Your task to perform on an android device: Add macbook pro 13 inch to the cart on walmart.com Image 0: 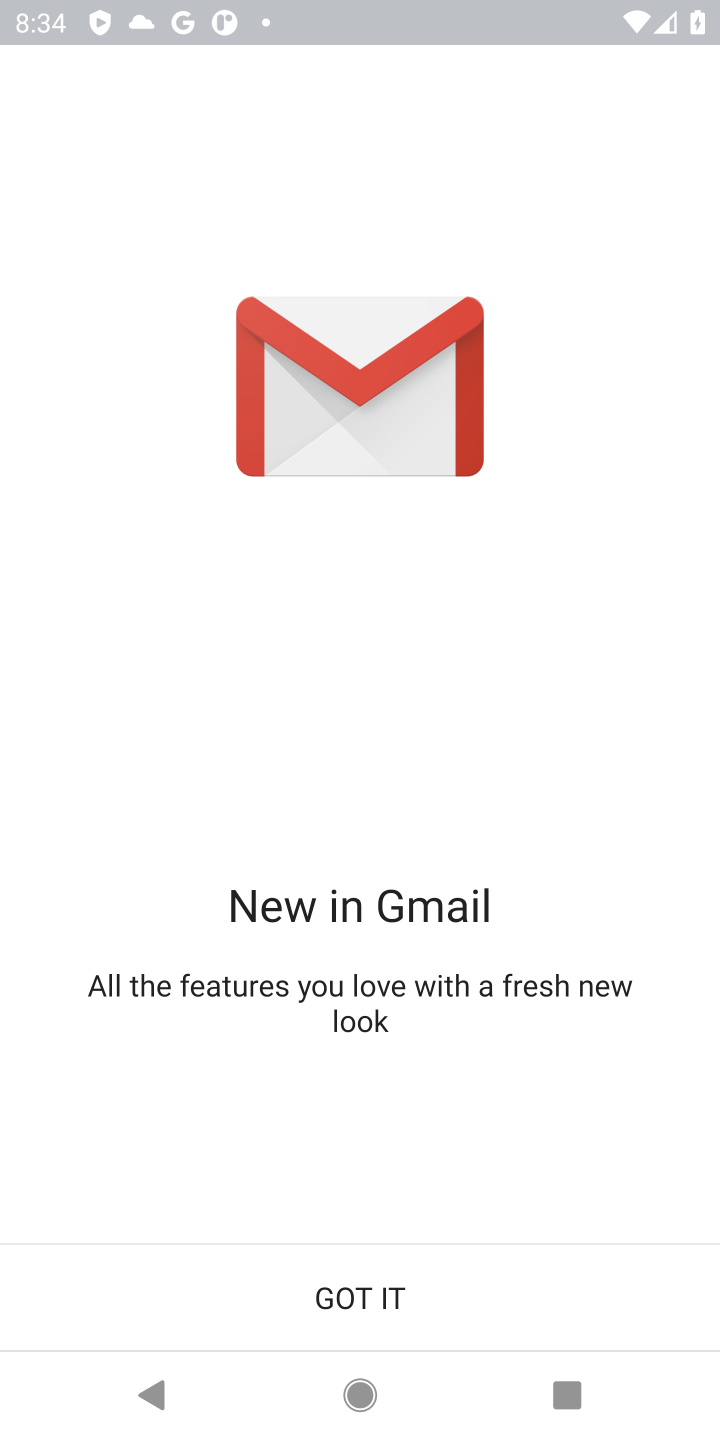
Step 0: click (449, 1317)
Your task to perform on an android device: Add macbook pro 13 inch to the cart on walmart.com Image 1: 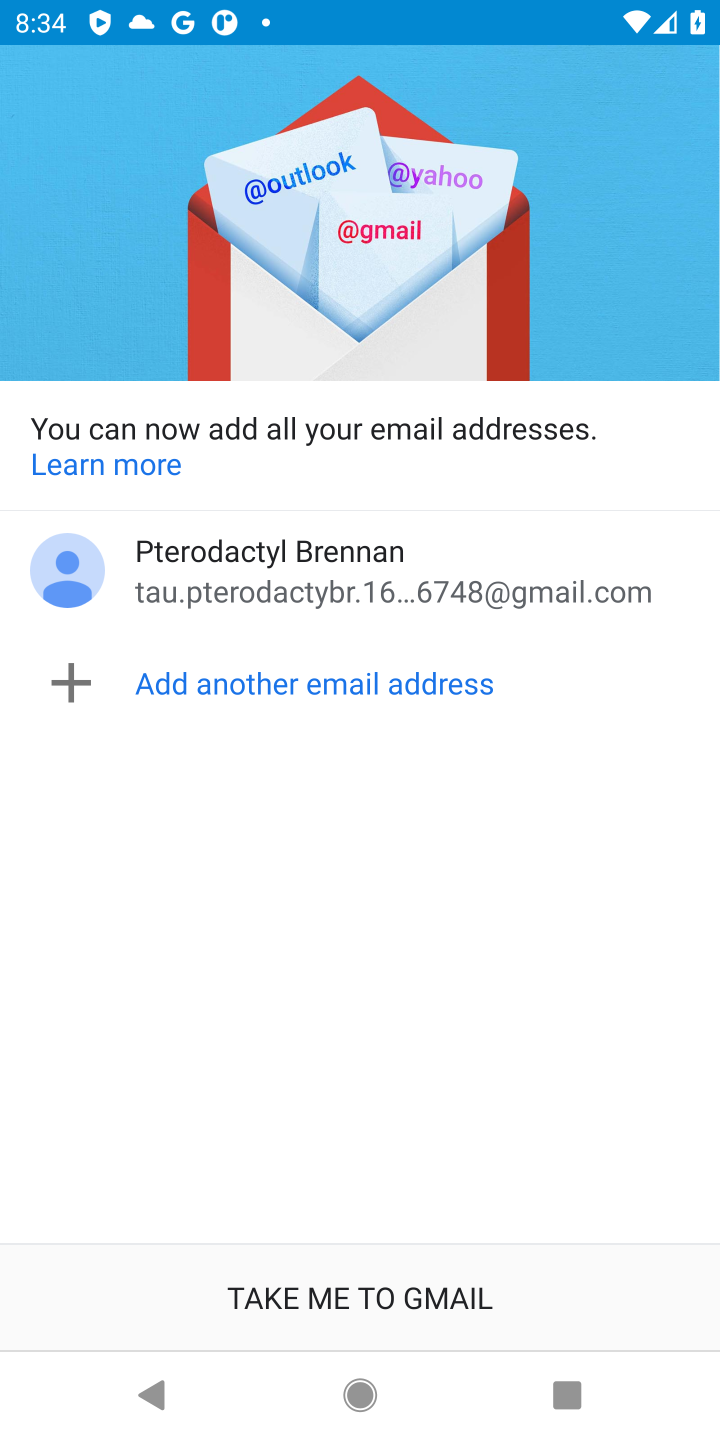
Step 1: press home button
Your task to perform on an android device: Add macbook pro 13 inch to the cart on walmart.com Image 2: 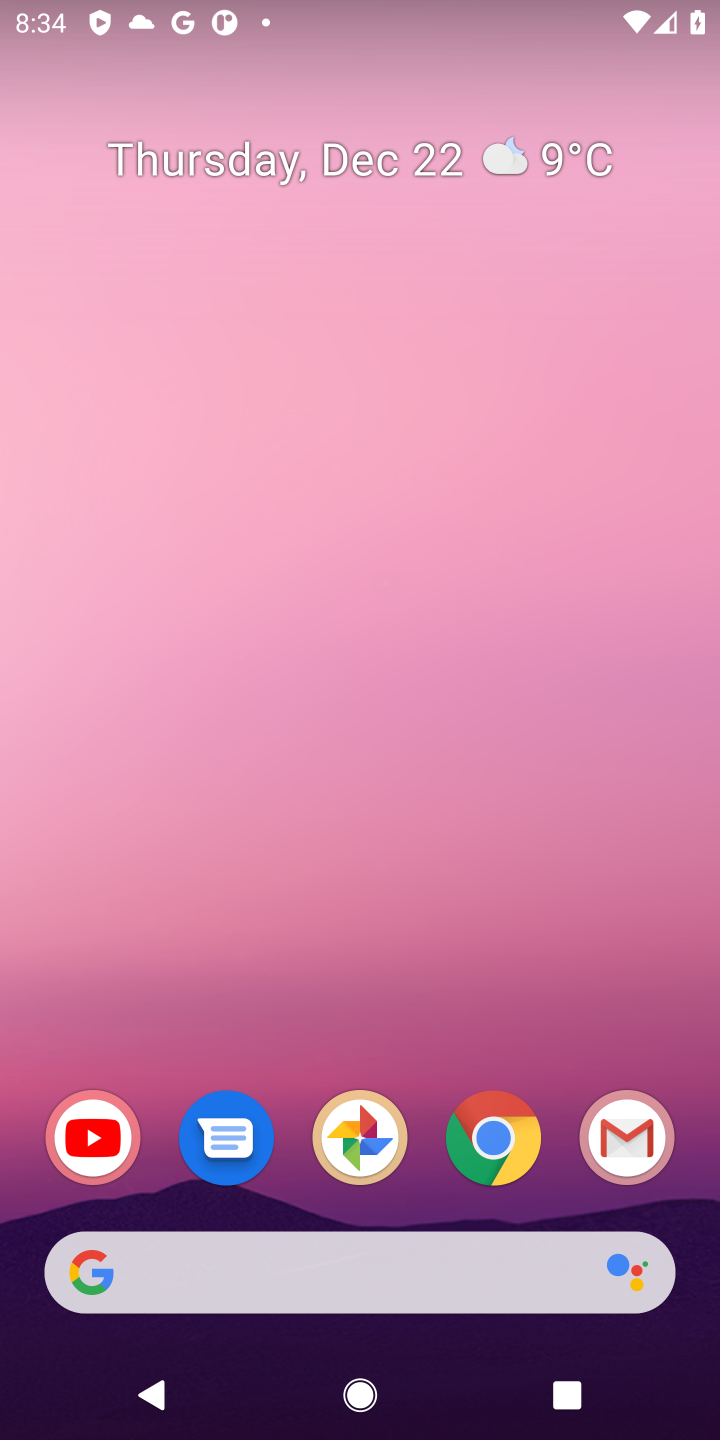
Step 2: click (497, 1167)
Your task to perform on an android device: Add macbook pro 13 inch to the cart on walmart.com Image 3: 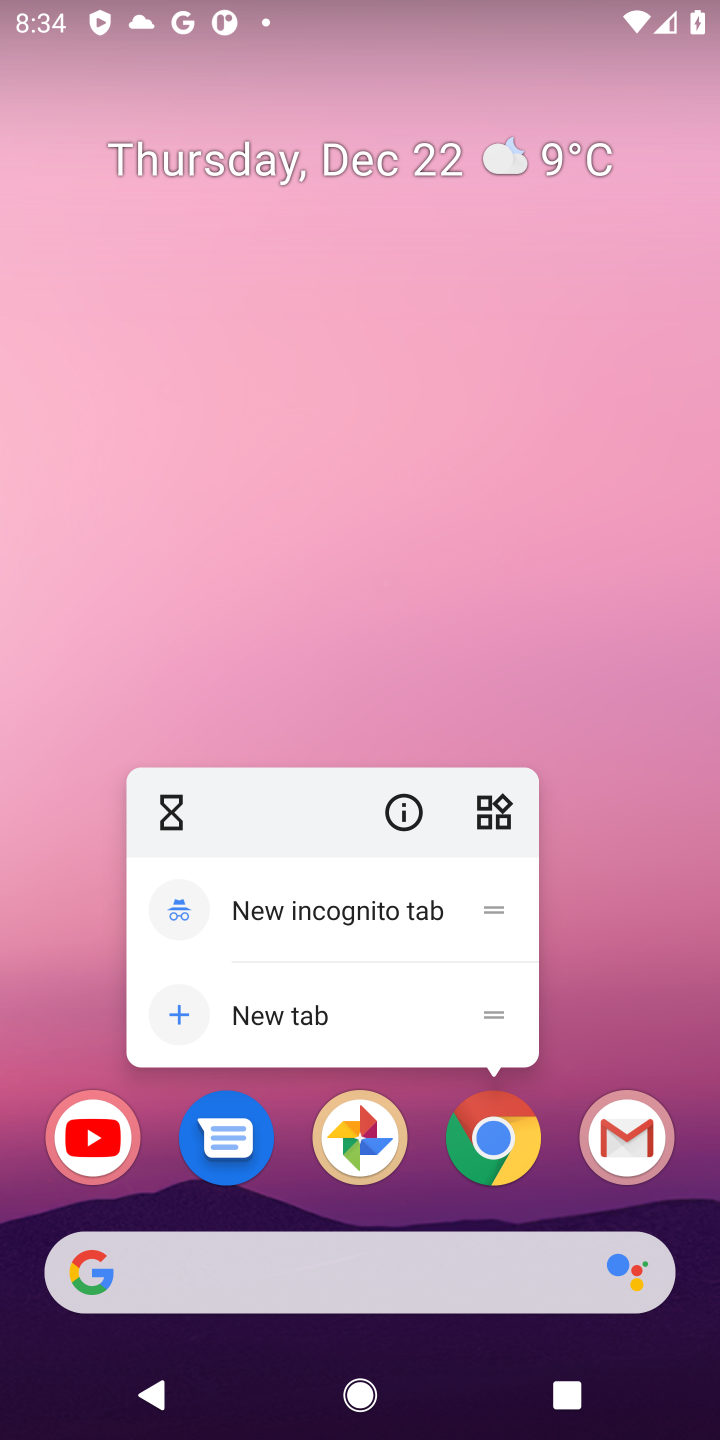
Step 3: click (474, 1151)
Your task to perform on an android device: Add macbook pro 13 inch to the cart on walmart.com Image 4: 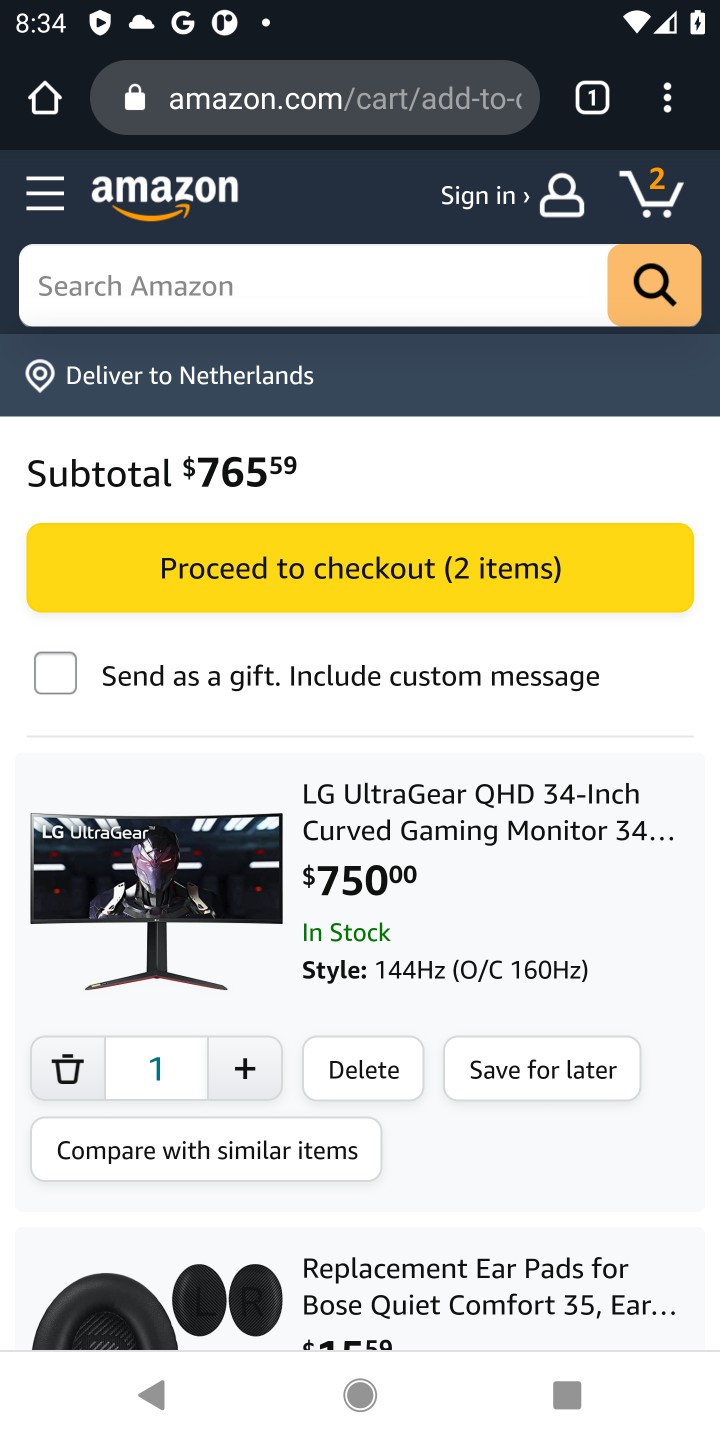
Step 4: click (341, 126)
Your task to perform on an android device: Add macbook pro 13 inch to the cart on walmart.com Image 5: 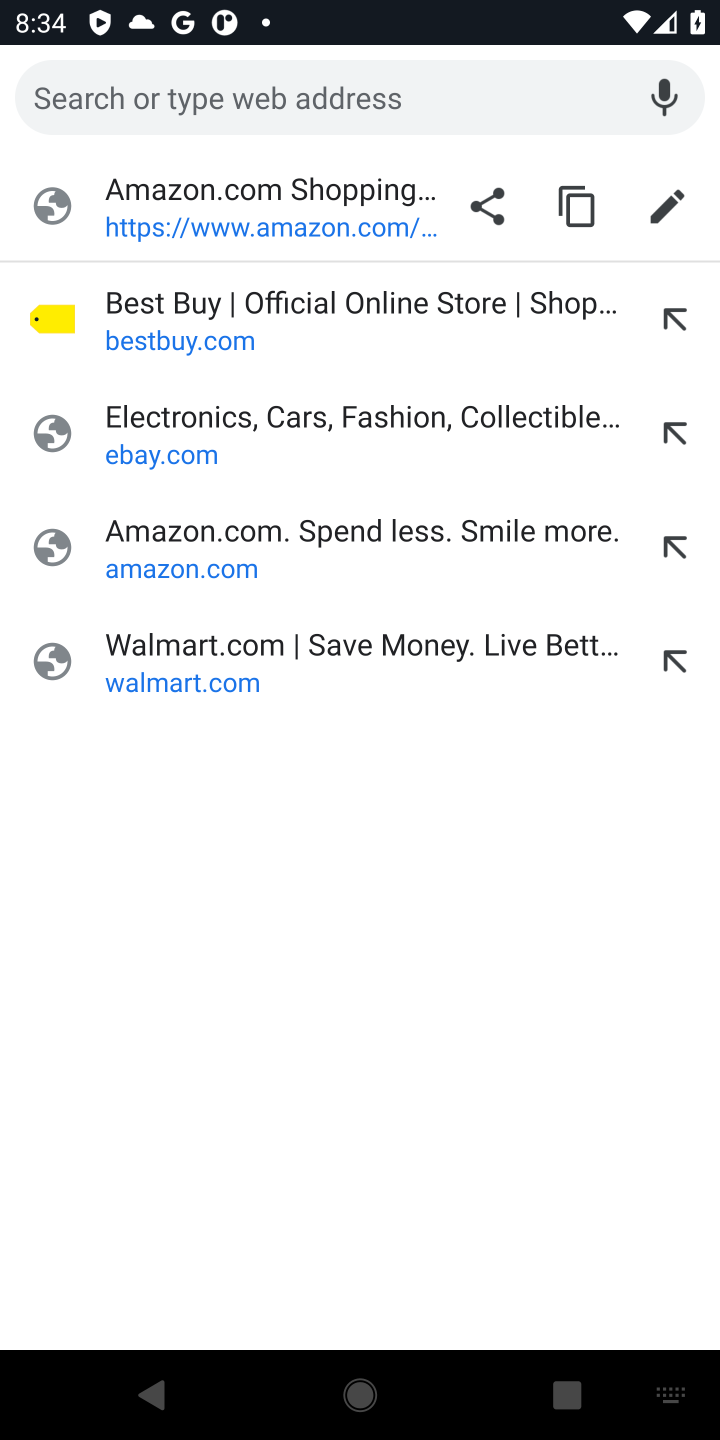
Step 5: type "walmart.com"
Your task to perform on an android device: Add macbook pro 13 inch to the cart on walmart.com Image 6: 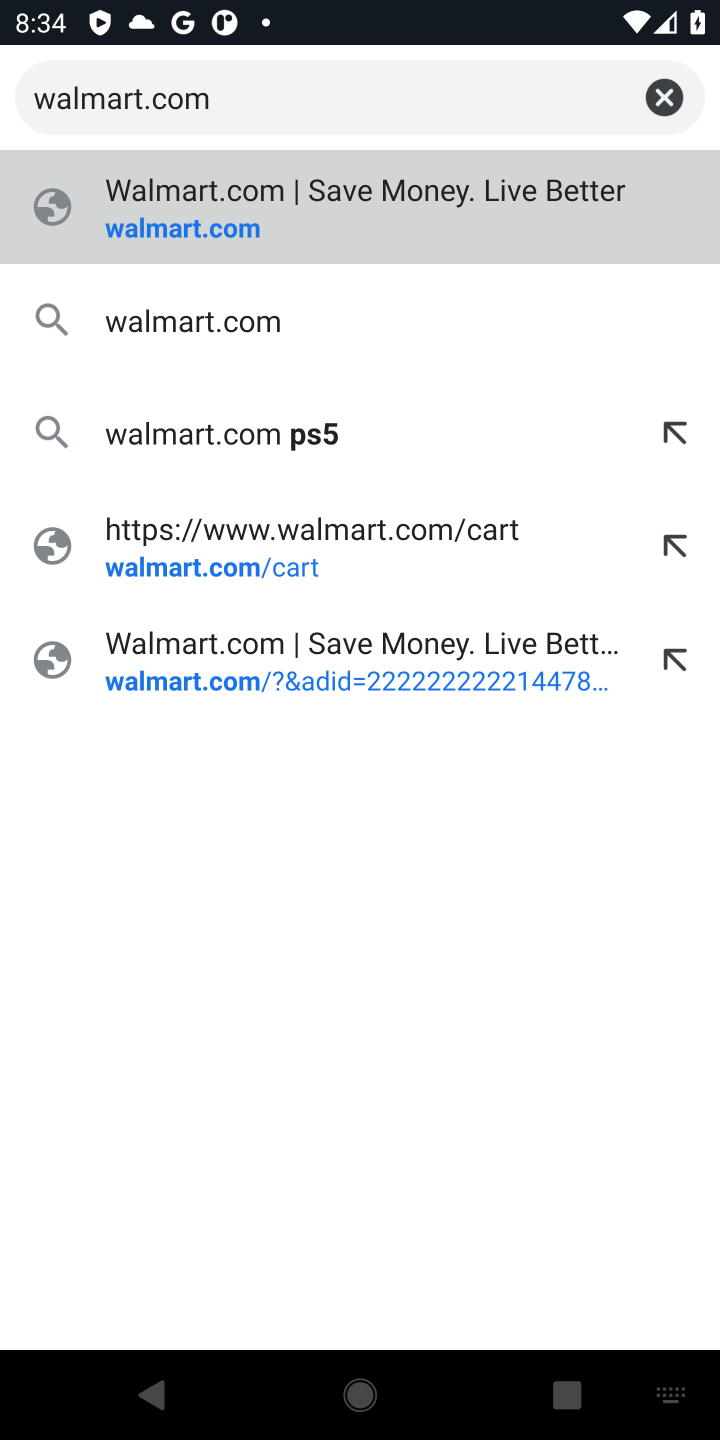
Step 6: click (340, 237)
Your task to perform on an android device: Add macbook pro 13 inch to the cart on walmart.com Image 7: 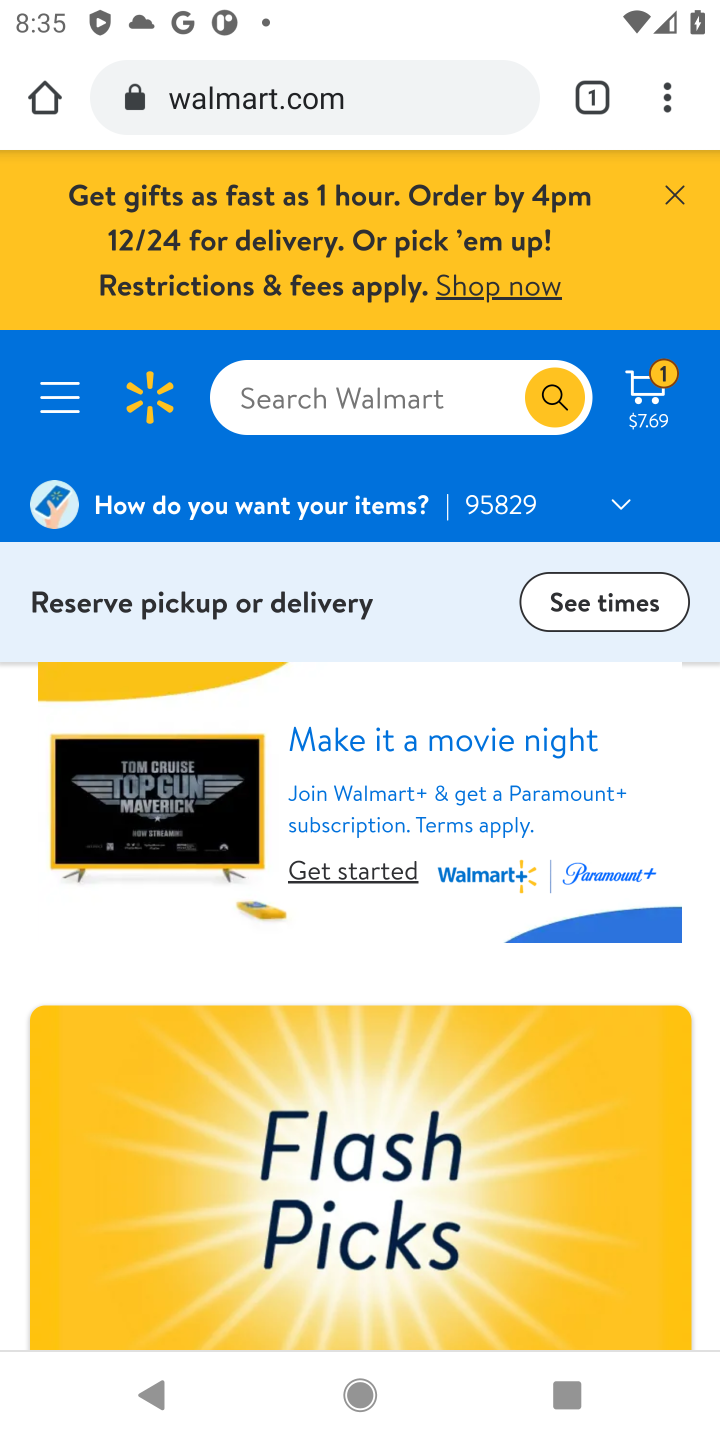
Step 7: click (671, 200)
Your task to perform on an android device: Add macbook pro 13 inch to the cart on walmart.com Image 8: 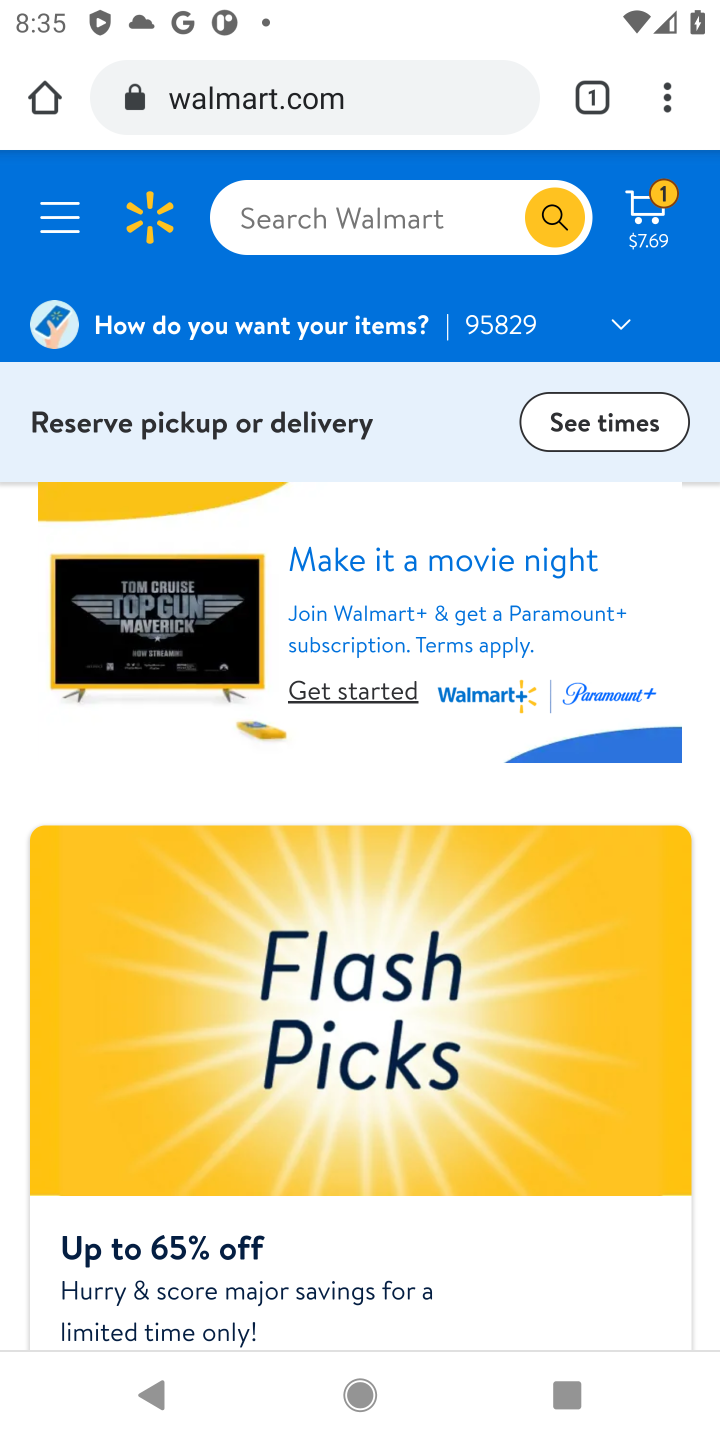
Step 8: click (304, 230)
Your task to perform on an android device: Add macbook pro 13 inch to the cart on walmart.com Image 9: 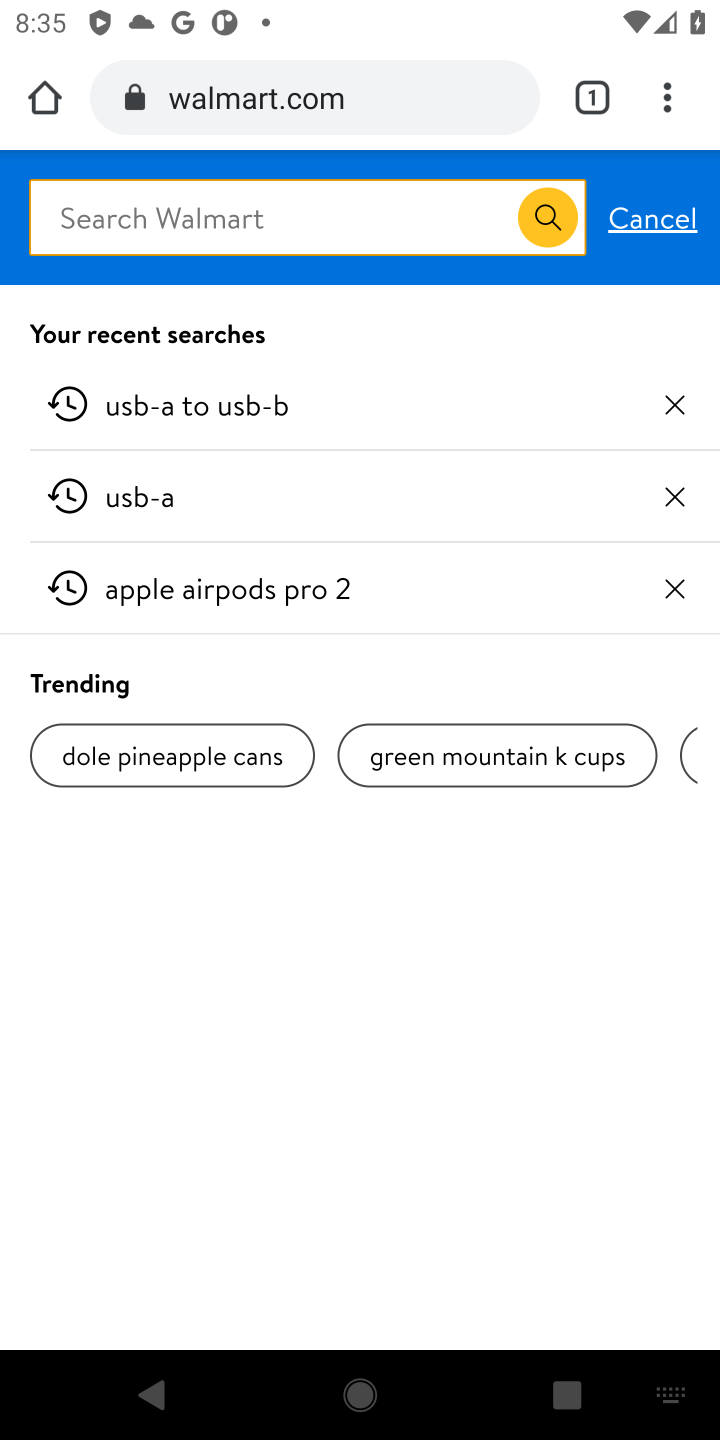
Step 9: type "macbook pro 13 inch"
Your task to perform on an android device: Add macbook pro 13 inch to the cart on walmart.com Image 10: 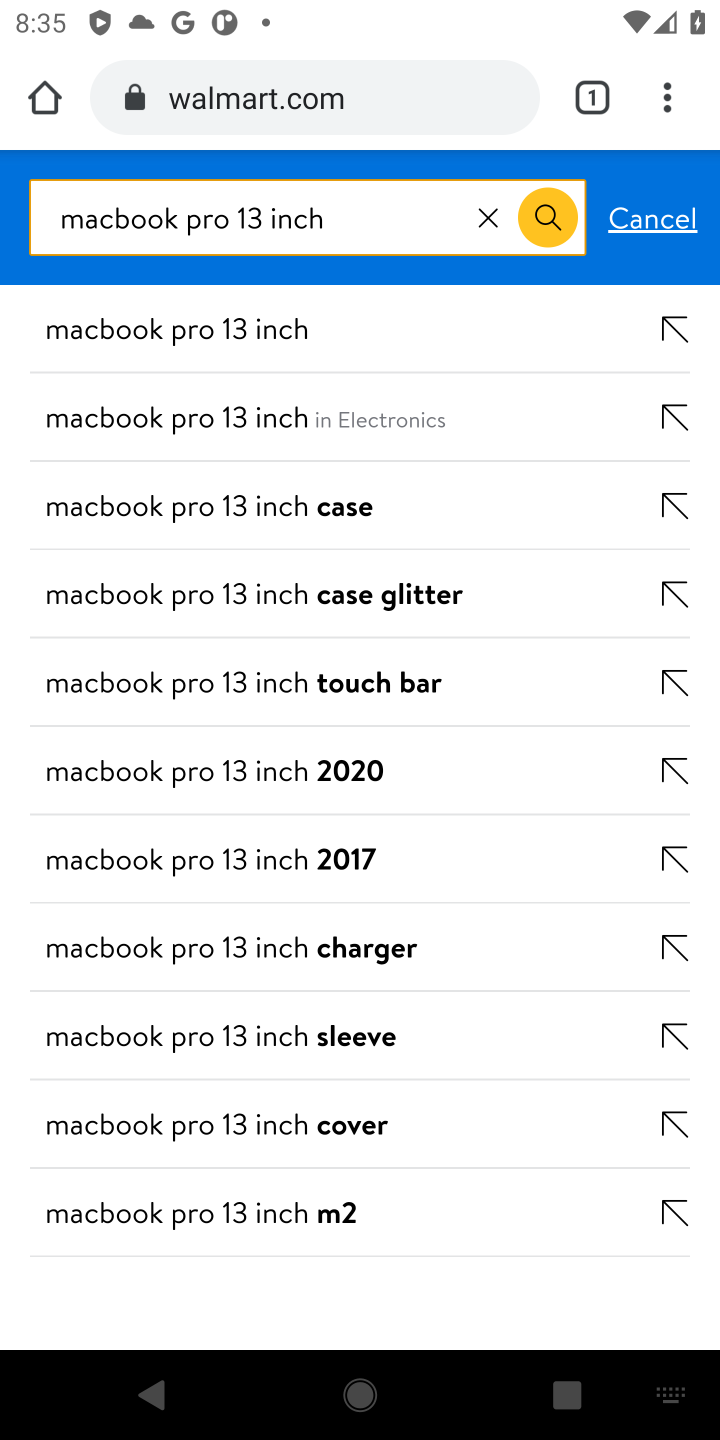
Step 10: click (548, 231)
Your task to perform on an android device: Add macbook pro 13 inch to the cart on walmart.com Image 11: 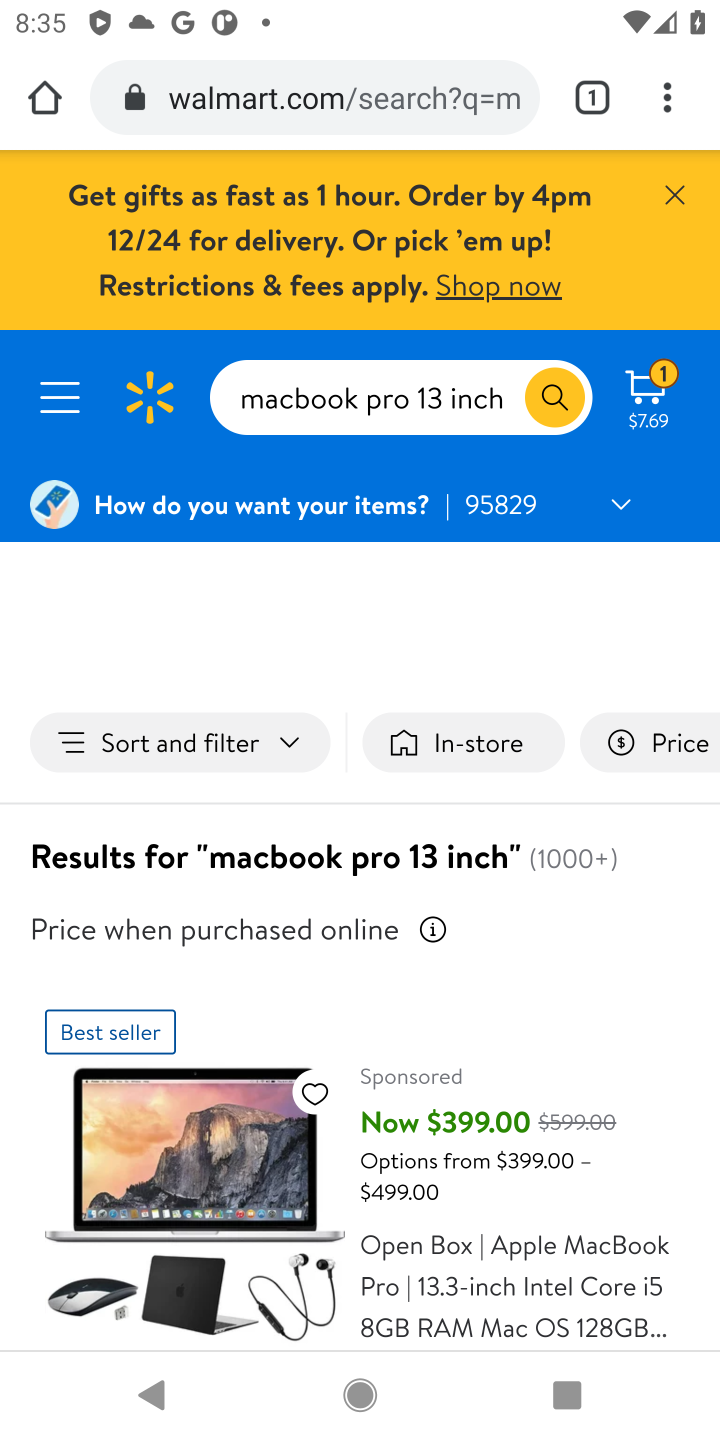
Step 11: drag from (491, 1008) to (434, 564)
Your task to perform on an android device: Add macbook pro 13 inch to the cart on walmart.com Image 12: 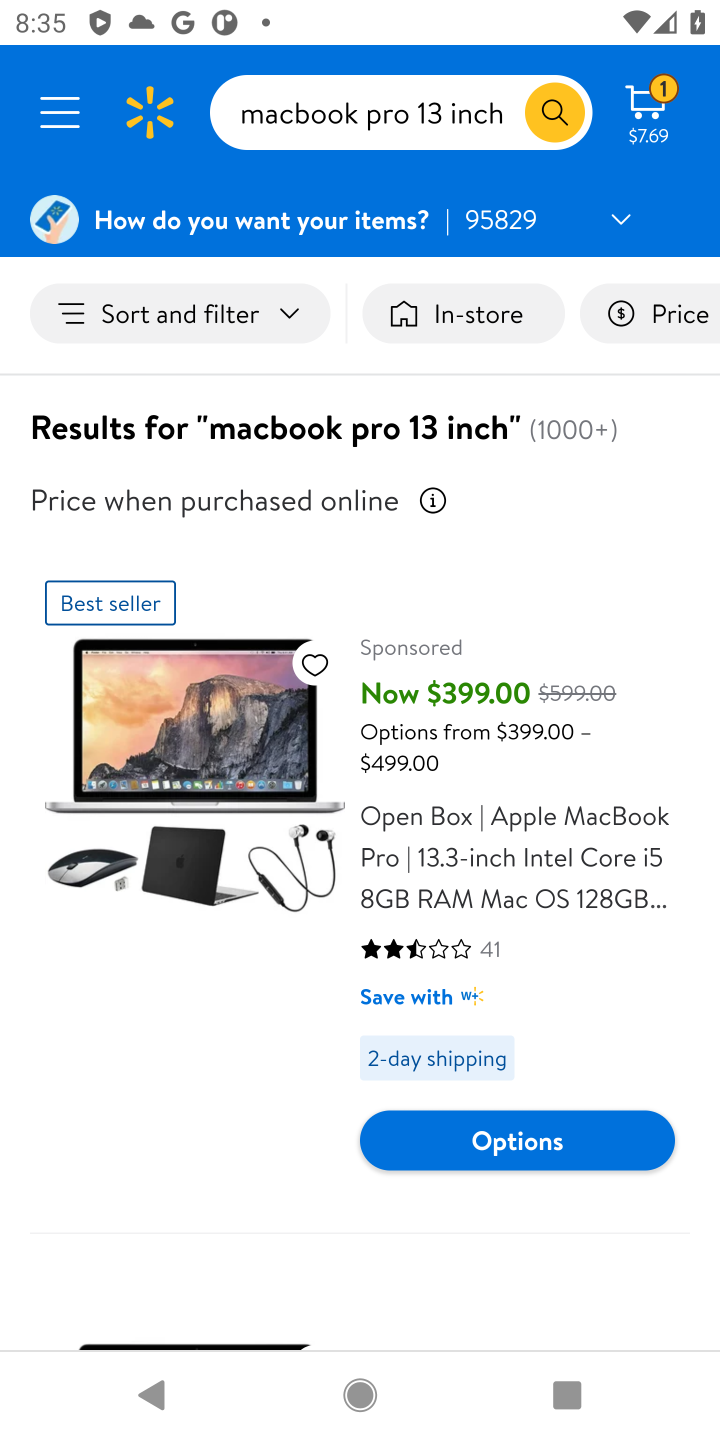
Step 12: click (460, 898)
Your task to perform on an android device: Add macbook pro 13 inch to the cart on walmart.com Image 13: 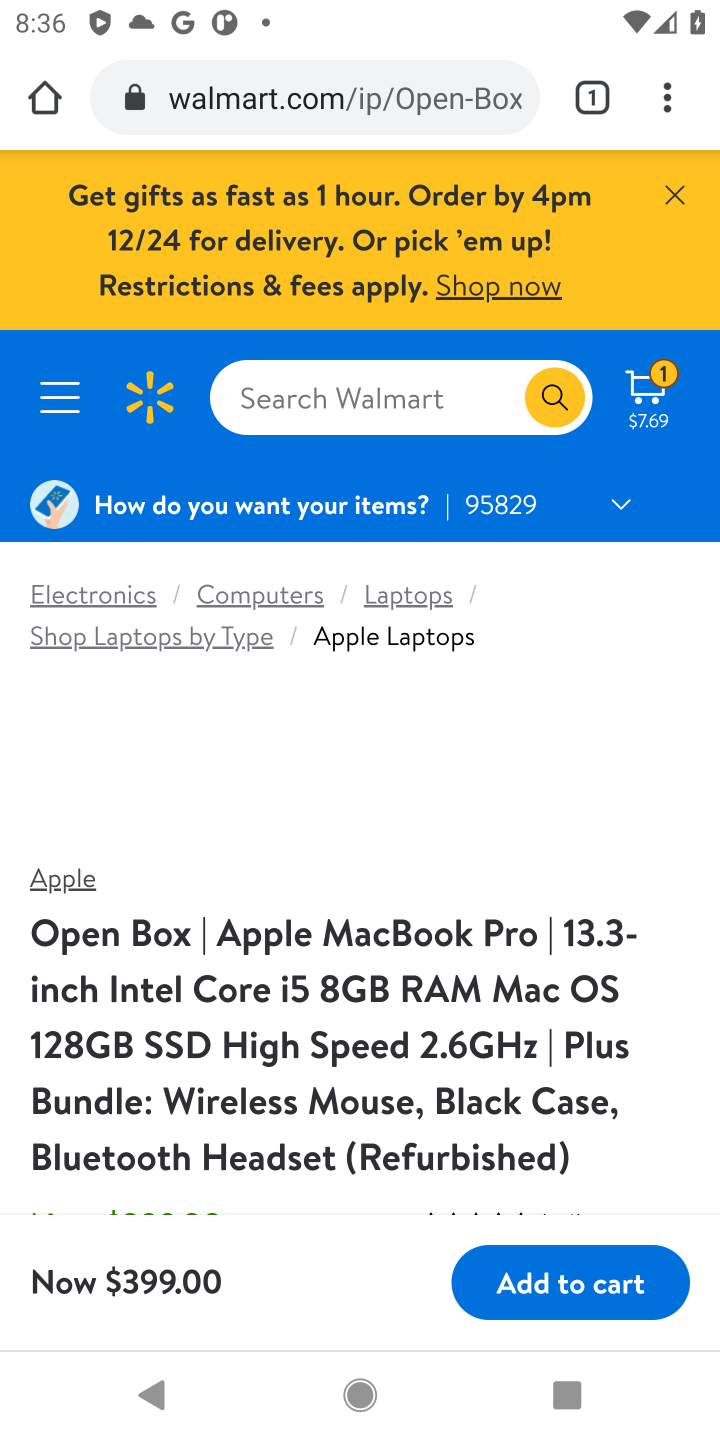
Step 13: click (553, 1300)
Your task to perform on an android device: Add macbook pro 13 inch to the cart on walmart.com Image 14: 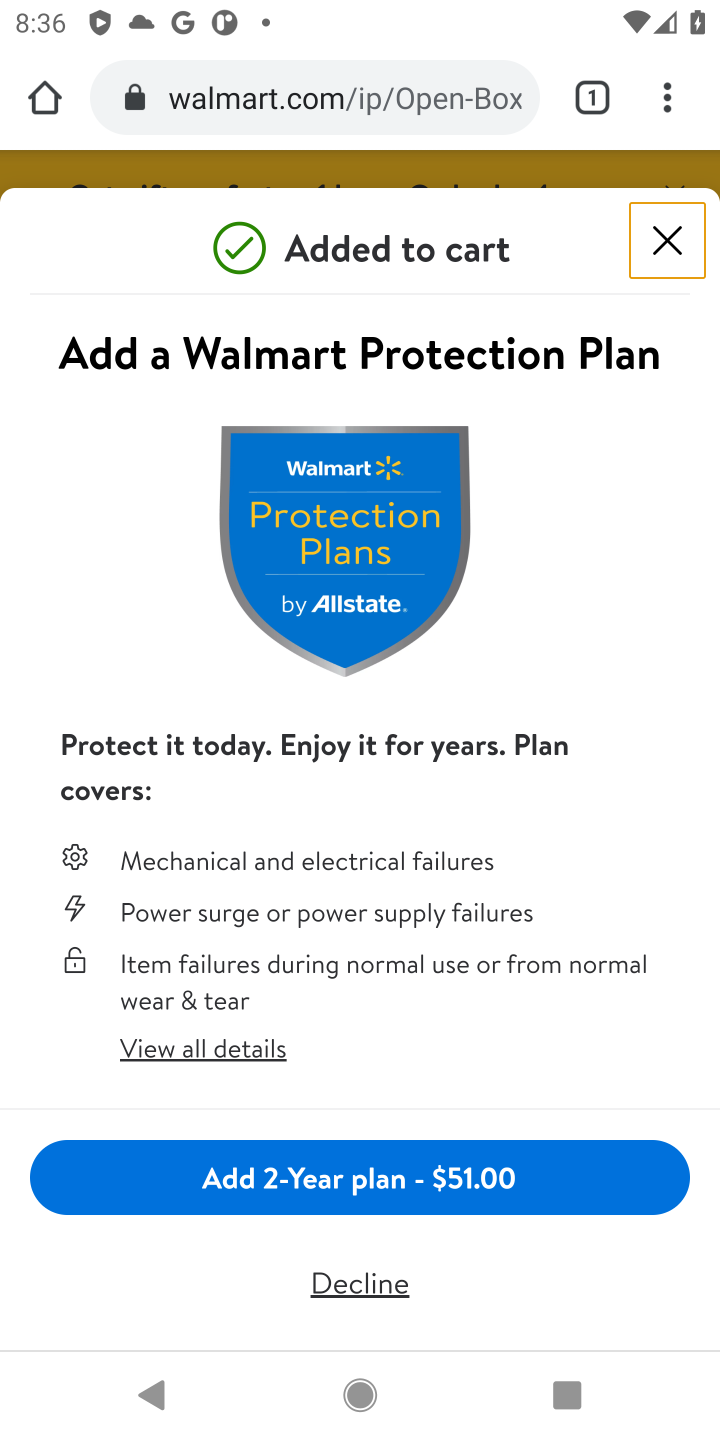
Step 14: task complete